Your task to perform on an android device: toggle translation in the chrome app Image 0: 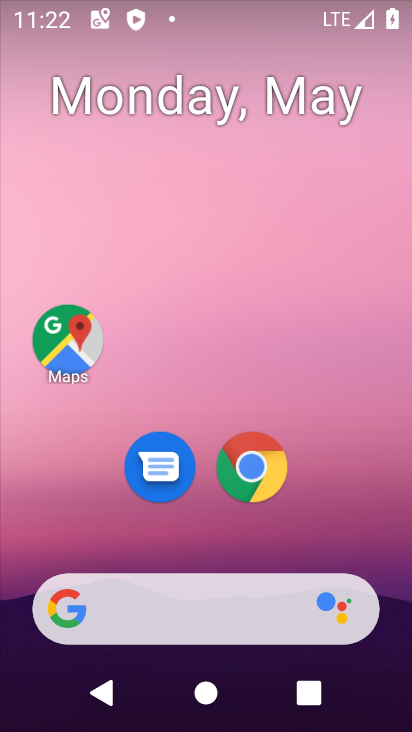
Step 0: click (252, 462)
Your task to perform on an android device: toggle translation in the chrome app Image 1: 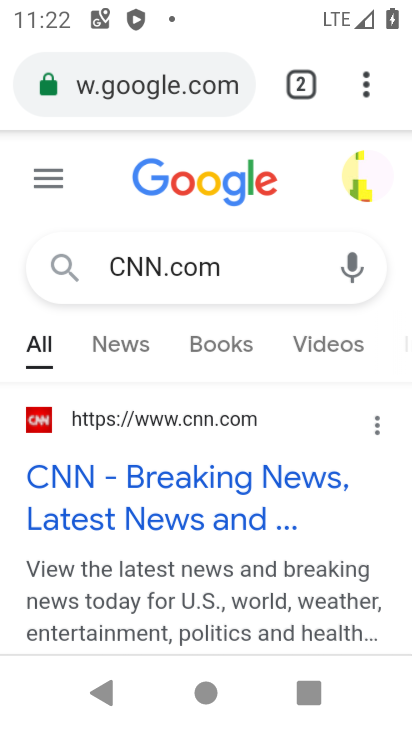
Step 1: click (365, 87)
Your task to perform on an android device: toggle translation in the chrome app Image 2: 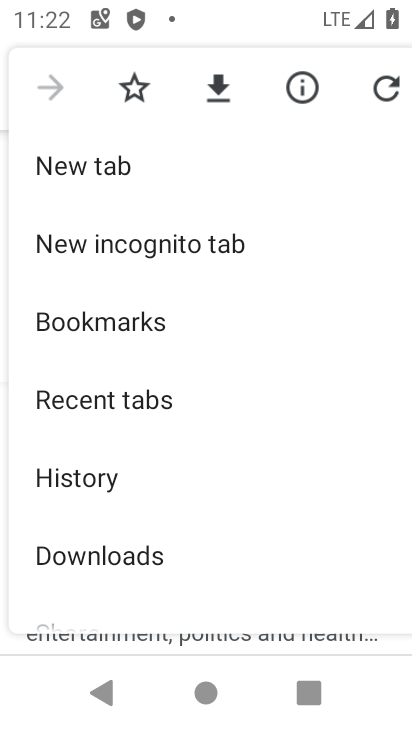
Step 2: drag from (247, 581) to (279, 242)
Your task to perform on an android device: toggle translation in the chrome app Image 3: 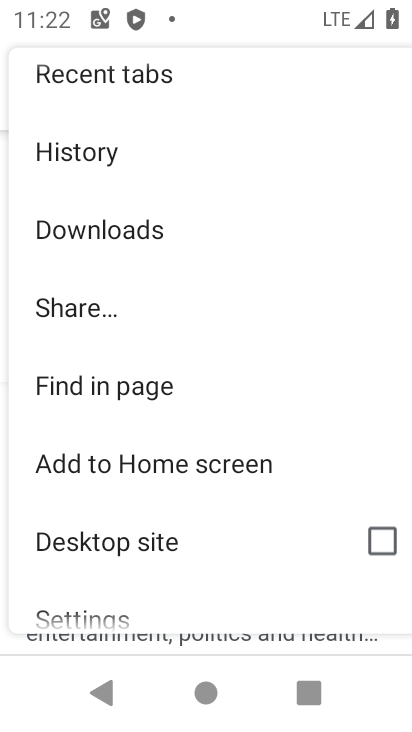
Step 3: drag from (298, 590) to (311, 220)
Your task to perform on an android device: toggle translation in the chrome app Image 4: 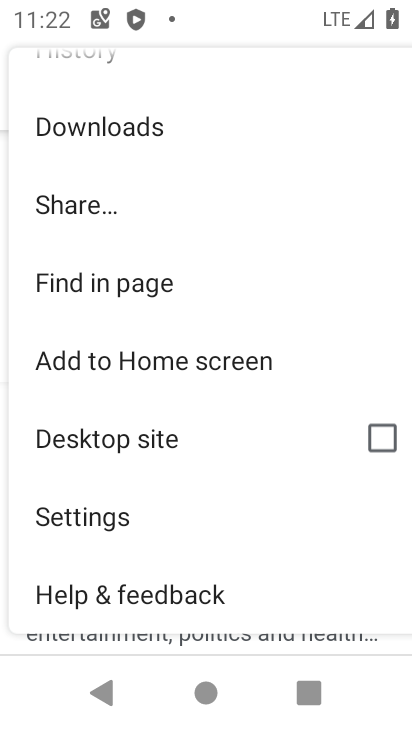
Step 4: click (71, 522)
Your task to perform on an android device: toggle translation in the chrome app Image 5: 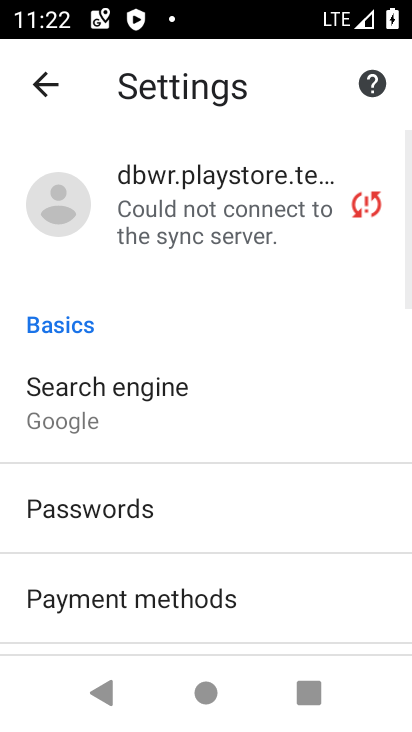
Step 5: drag from (276, 609) to (276, 227)
Your task to perform on an android device: toggle translation in the chrome app Image 6: 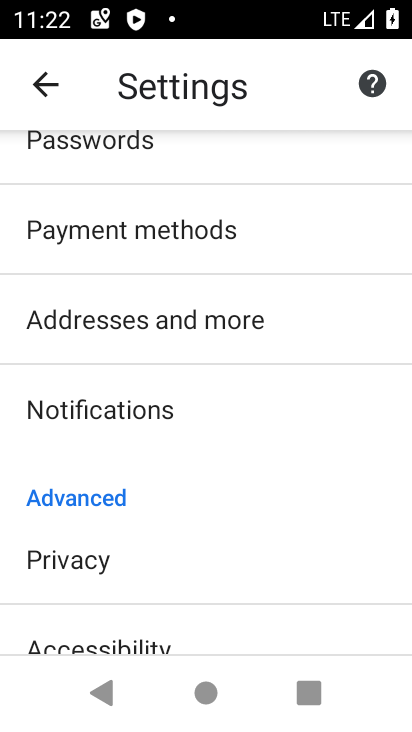
Step 6: drag from (239, 626) to (271, 245)
Your task to perform on an android device: toggle translation in the chrome app Image 7: 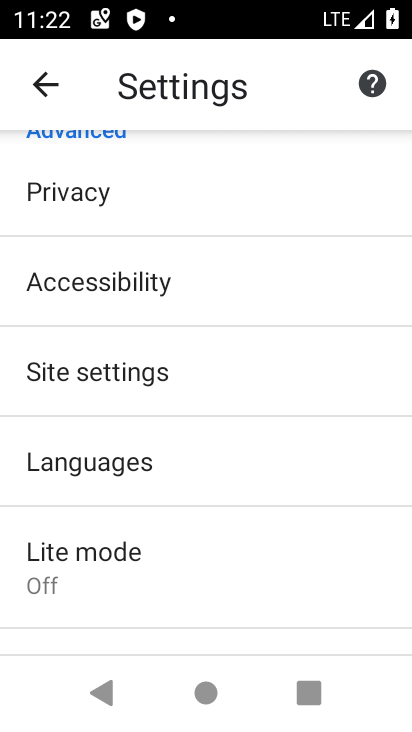
Step 7: click (95, 464)
Your task to perform on an android device: toggle translation in the chrome app Image 8: 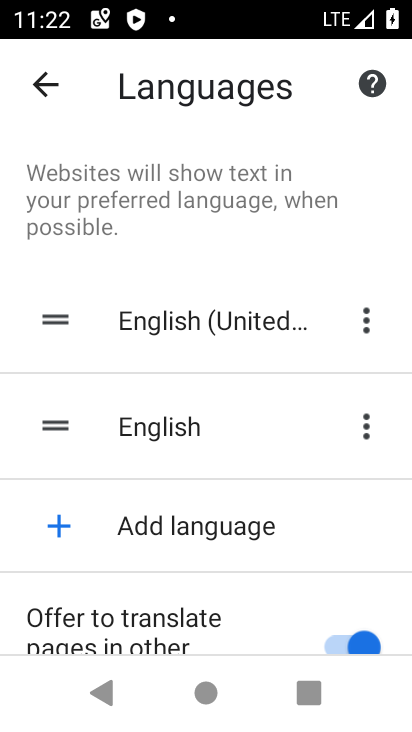
Step 8: drag from (259, 589) to (274, 334)
Your task to perform on an android device: toggle translation in the chrome app Image 9: 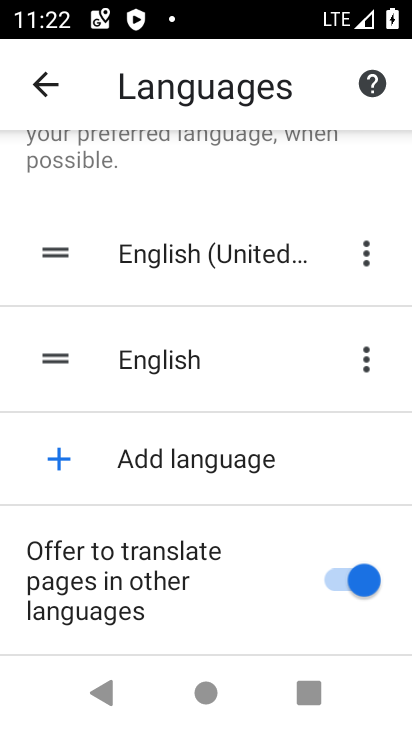
Step 9: click (326, 583)
Your task to perform on an android device: toggle translation in the chrome app Image 10: 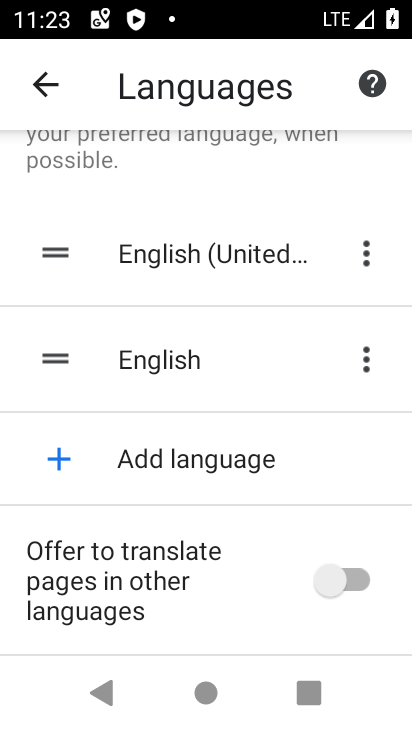
Step 10: task complete